Your task to perform on an android device: Open Reddit.com Image 0: 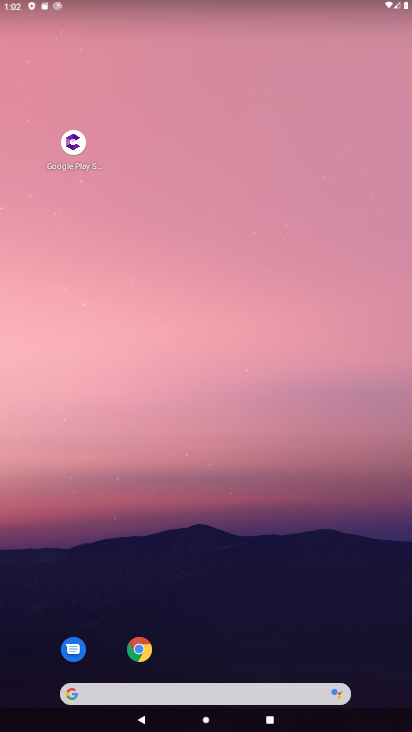
Step 0: click (138, 651)
Your task to perform on an android device: Open Reddit.com Image 1: 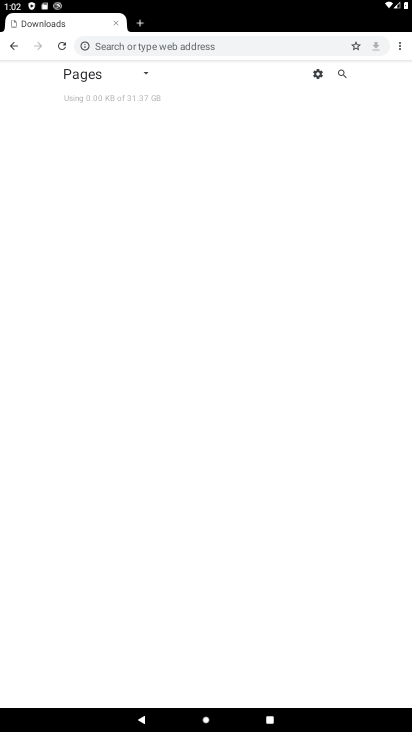
Step 1: click (127, 44)
Your task to perform on an android device: Open Reddit.com Image 2: 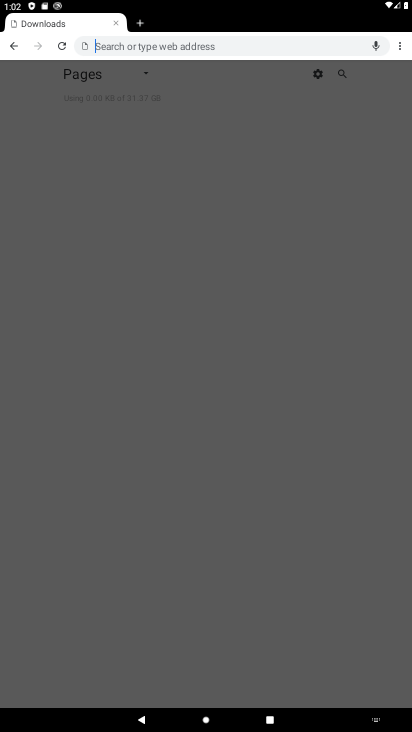
Step 2: type "Reddit.com"
Your task to perform on an android device: Open Reddit.com Image 3: 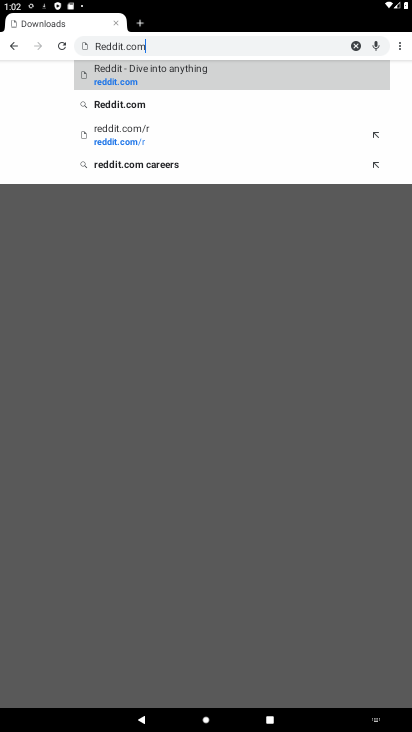
Step 3: click (129, 66)
Your task to perform on an android device: Open Reddit.com Image 4: 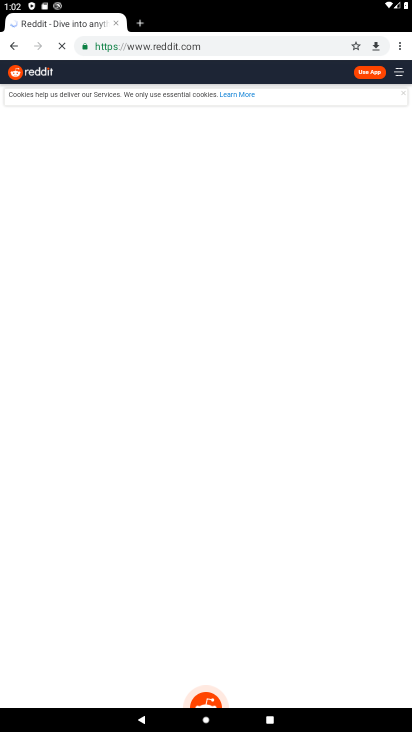
Step 4: task complete